Your task to perform on an android device: What's the weather? Image 0: 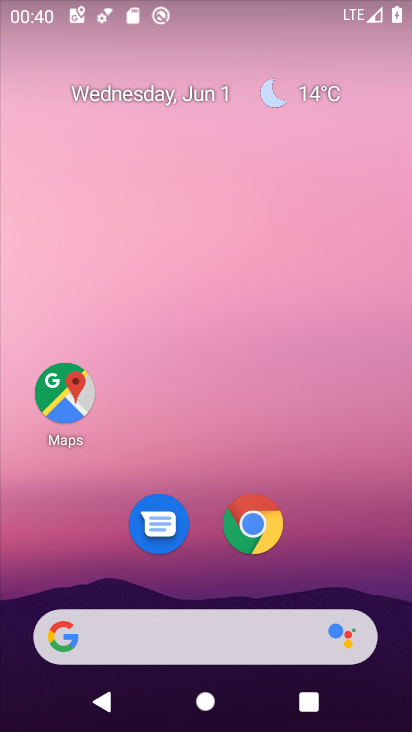
Step 0: click (304, 88)
Your task to perform on an android device: What's the weather? Image 1: 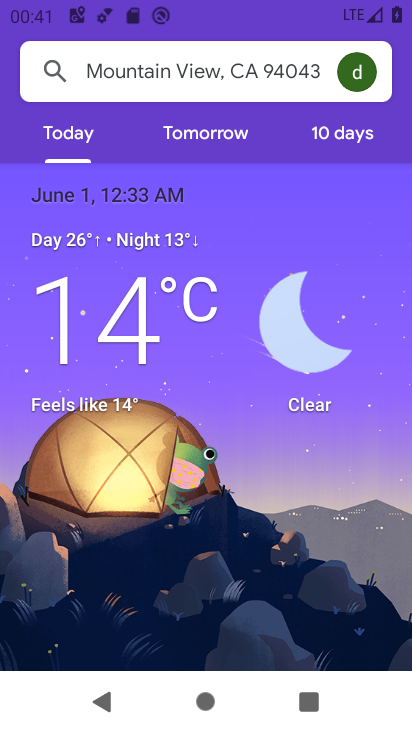
Step 1: task complete